Your task to perform on an android device: Show me popular games on the Play Store Image 0: 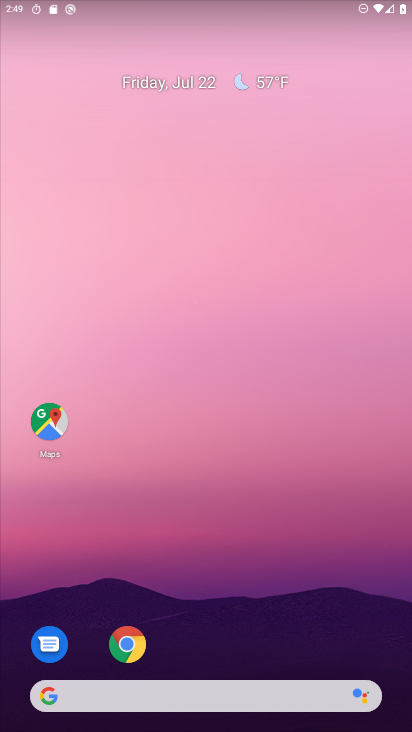
Step 0: drag from (251, 585) to (251, 152)
Your task to perform on an android device: Show me popular games on the Play Store Image 1: 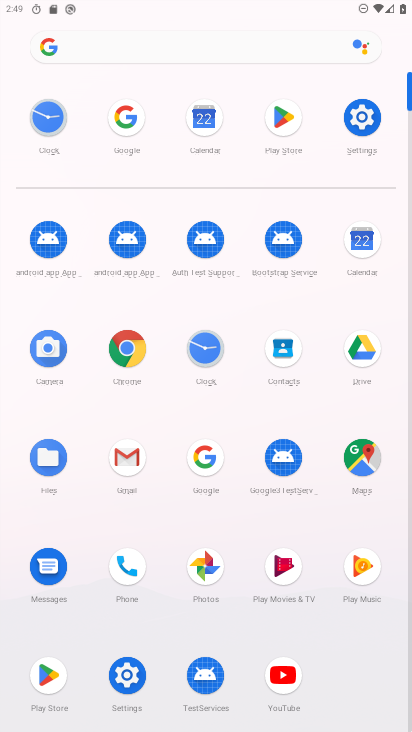
Step 1: click (289, 149)
Your task to perform on an android device: Show me popular games on the Play Store Image 2: 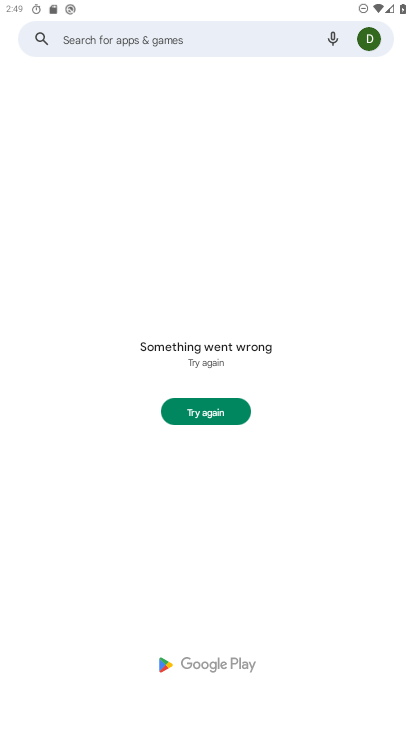
Step 2: task complete